Your task to perform on an android device: open app "Google Chat" Image 0: 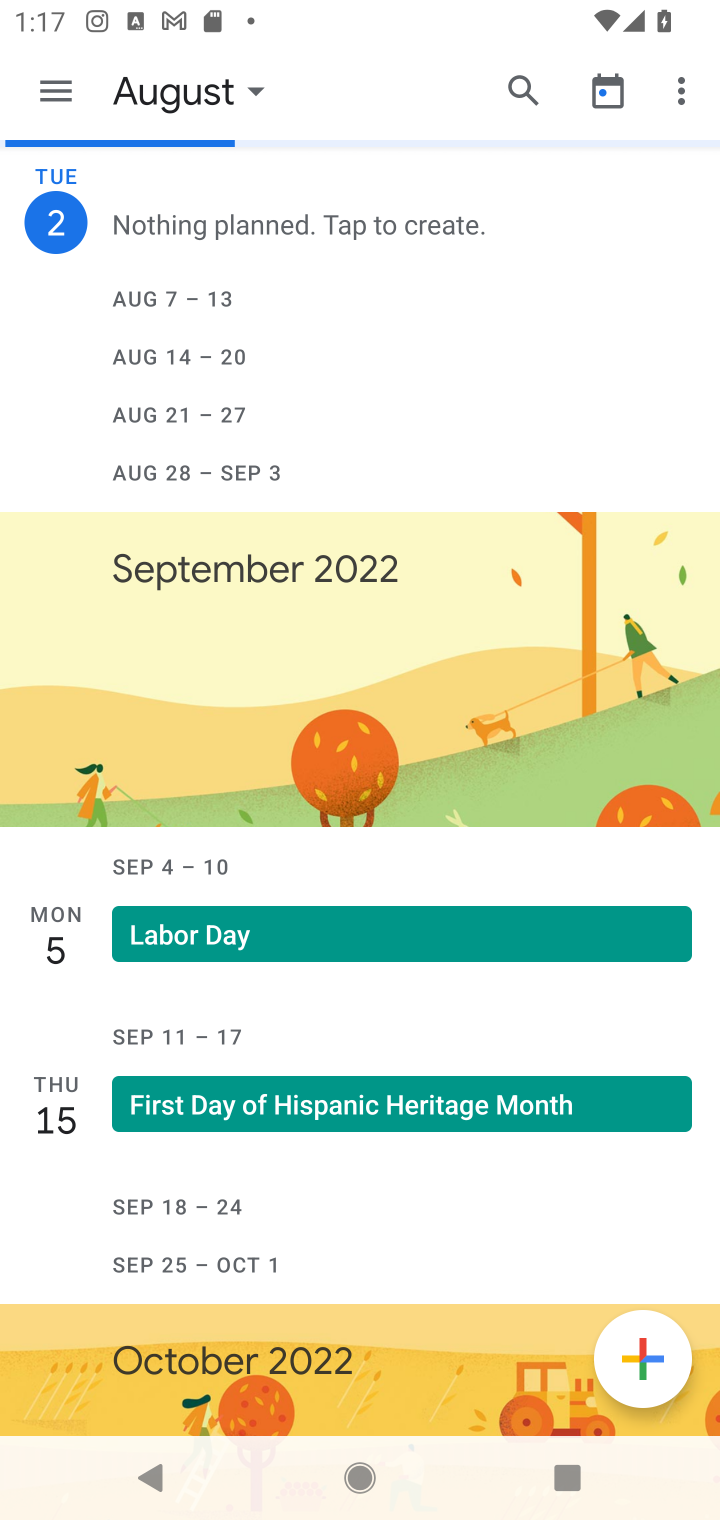
Step 0: press home button
Your task to perform on an android device: open app "Google Chat" Image 1: 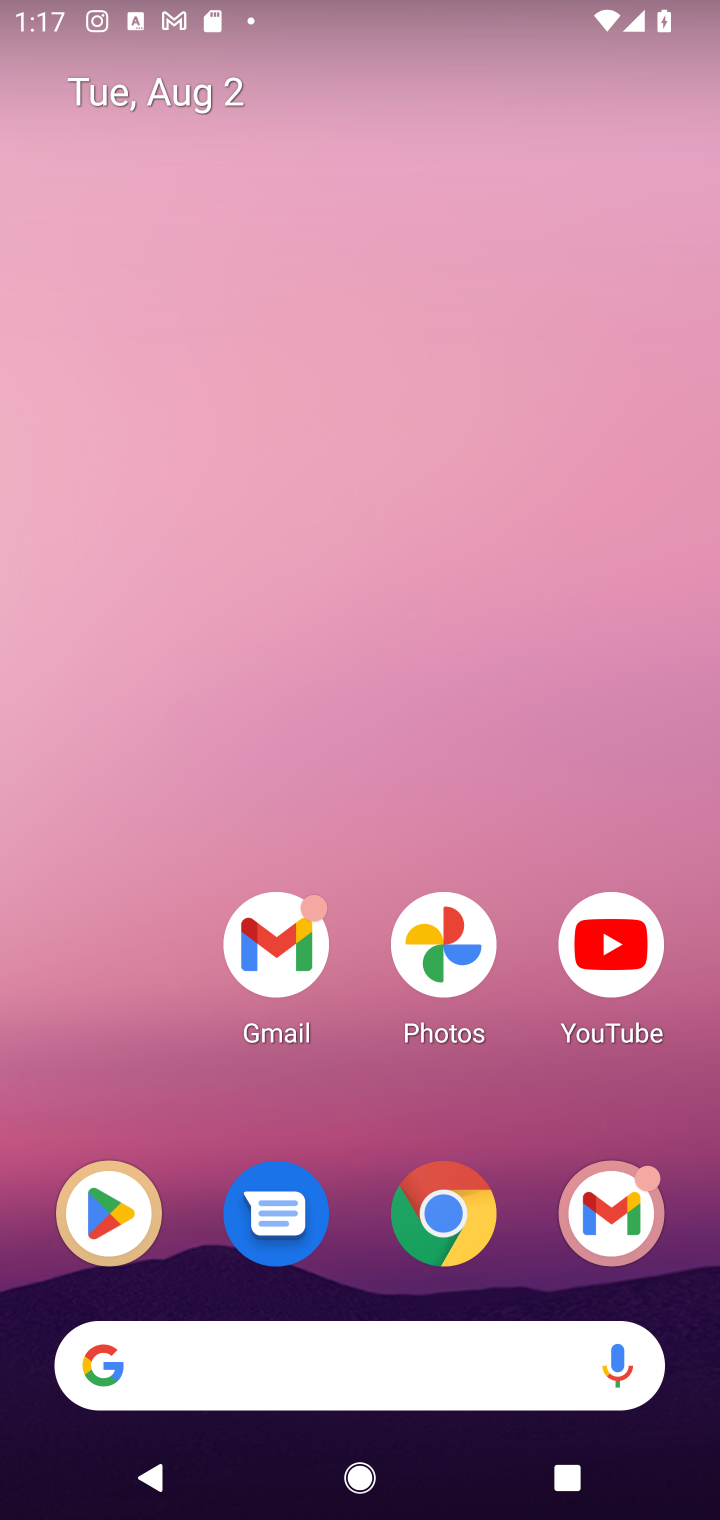
Step 1: click (121, 1234)
Your task to perform on an android device: open app "Google Chat" Image 2: 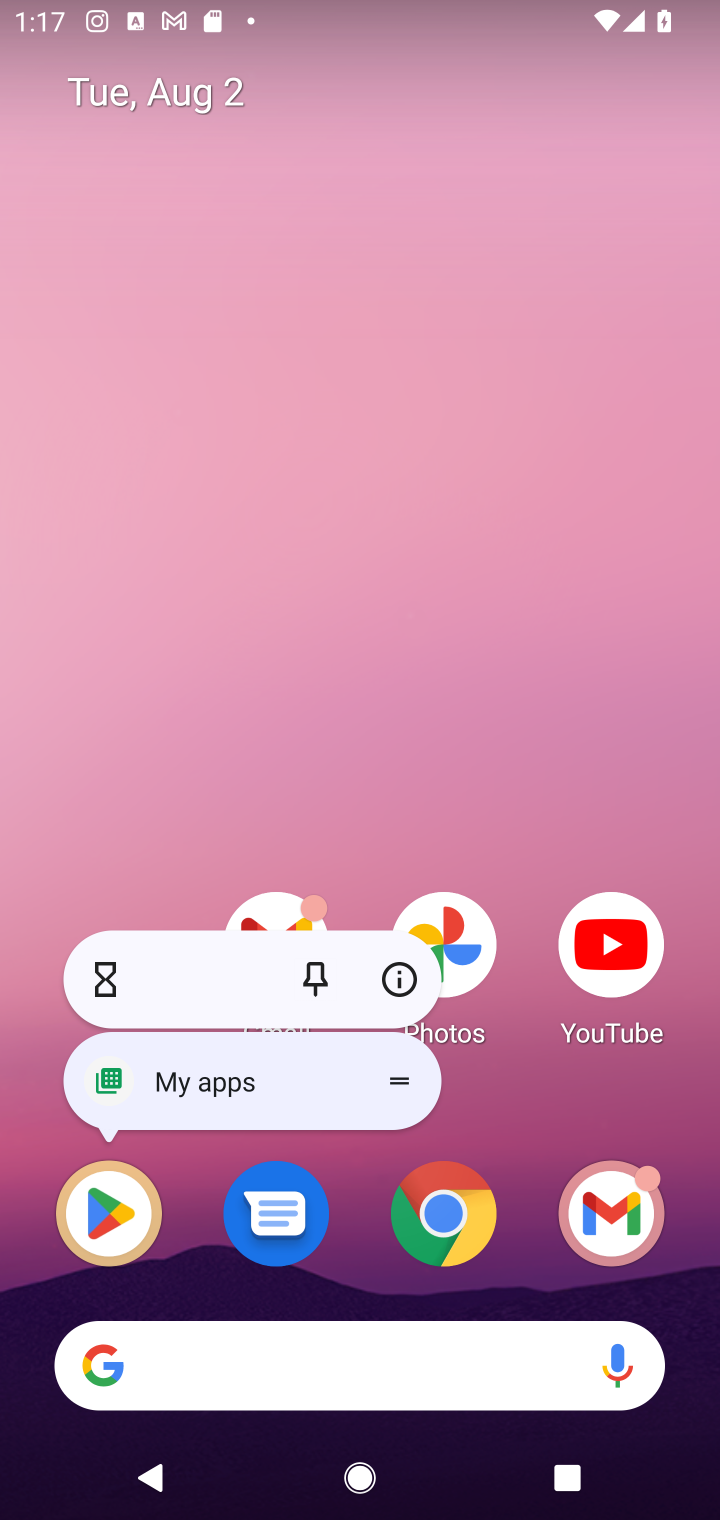
Step 2: click (107, 1245)
Your task to perform on an android device: open app "Google Chat" Image 3: 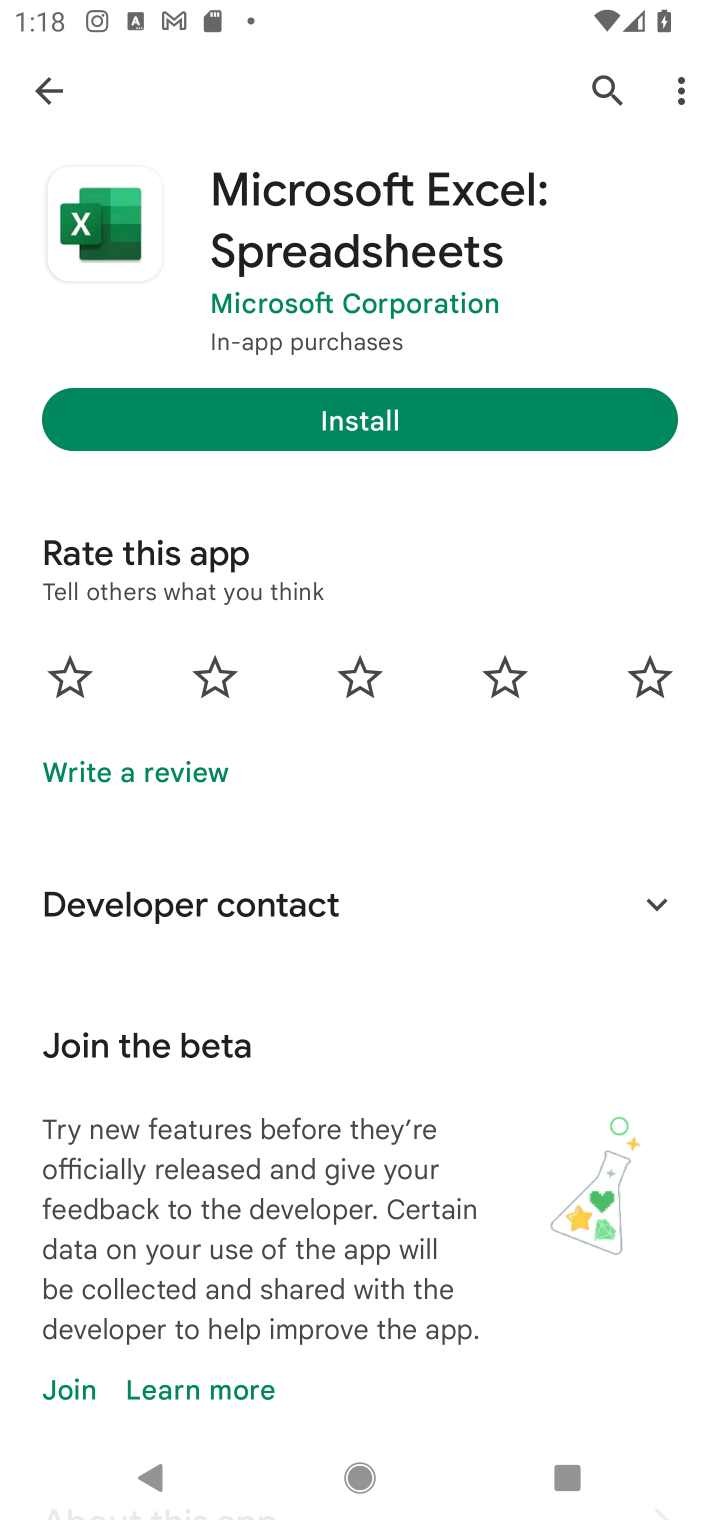
Step 3: click (53, 102)
Your task to perform on an android device: open app "Google Chat" Image 4: 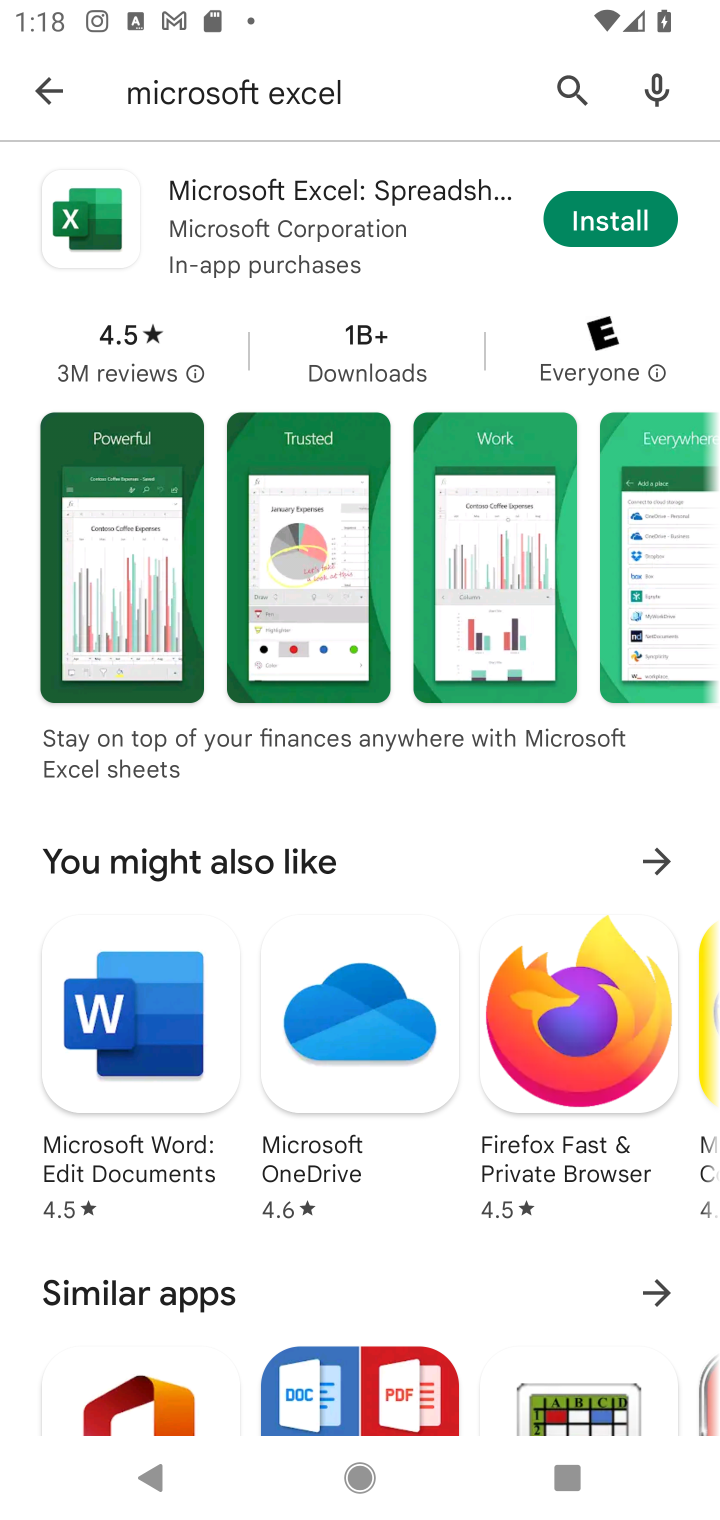
Step 4: click (53, 83)
Your task to perform on an android device: open app "Google Chat" Image 5: 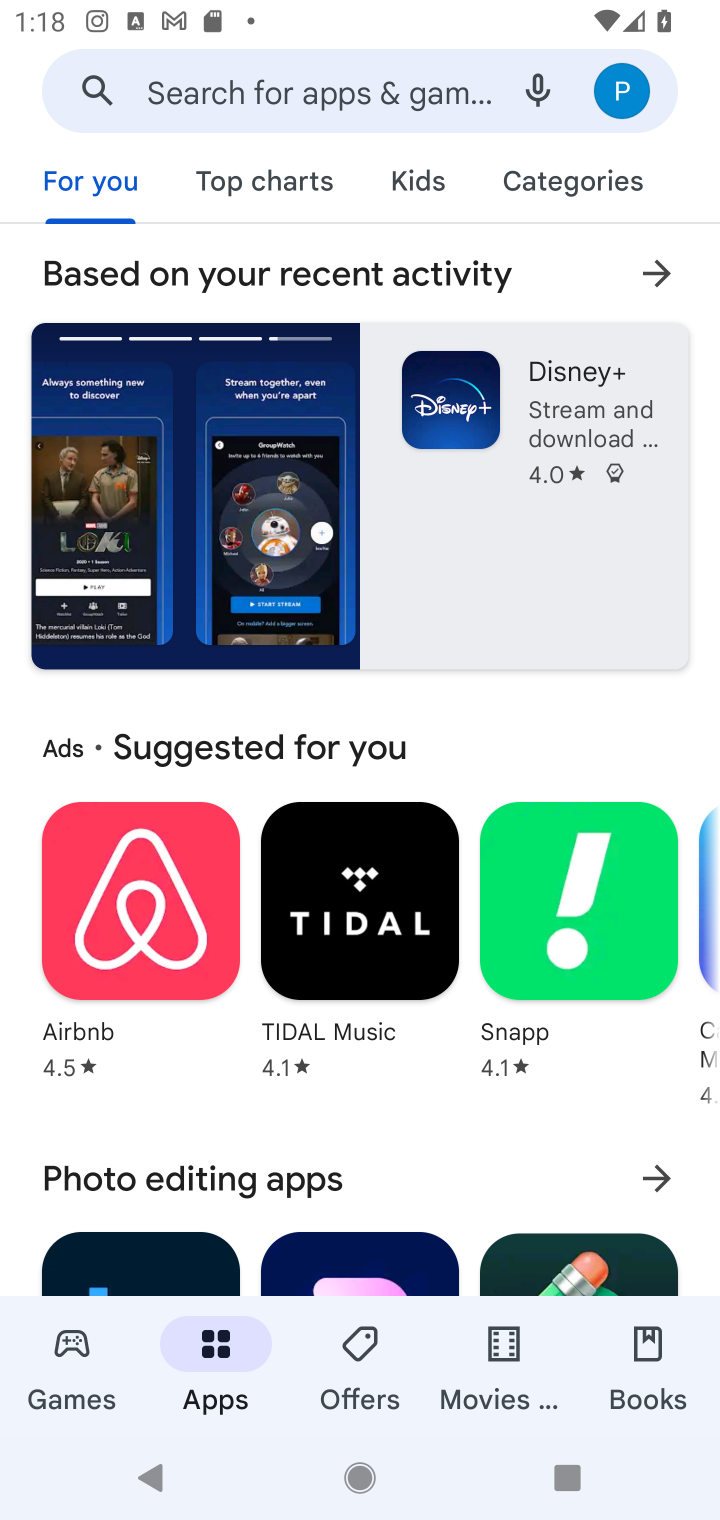
Step 5: click (53, 83)
Your task to perform on an android device: open app "Google Chat" Image 6: 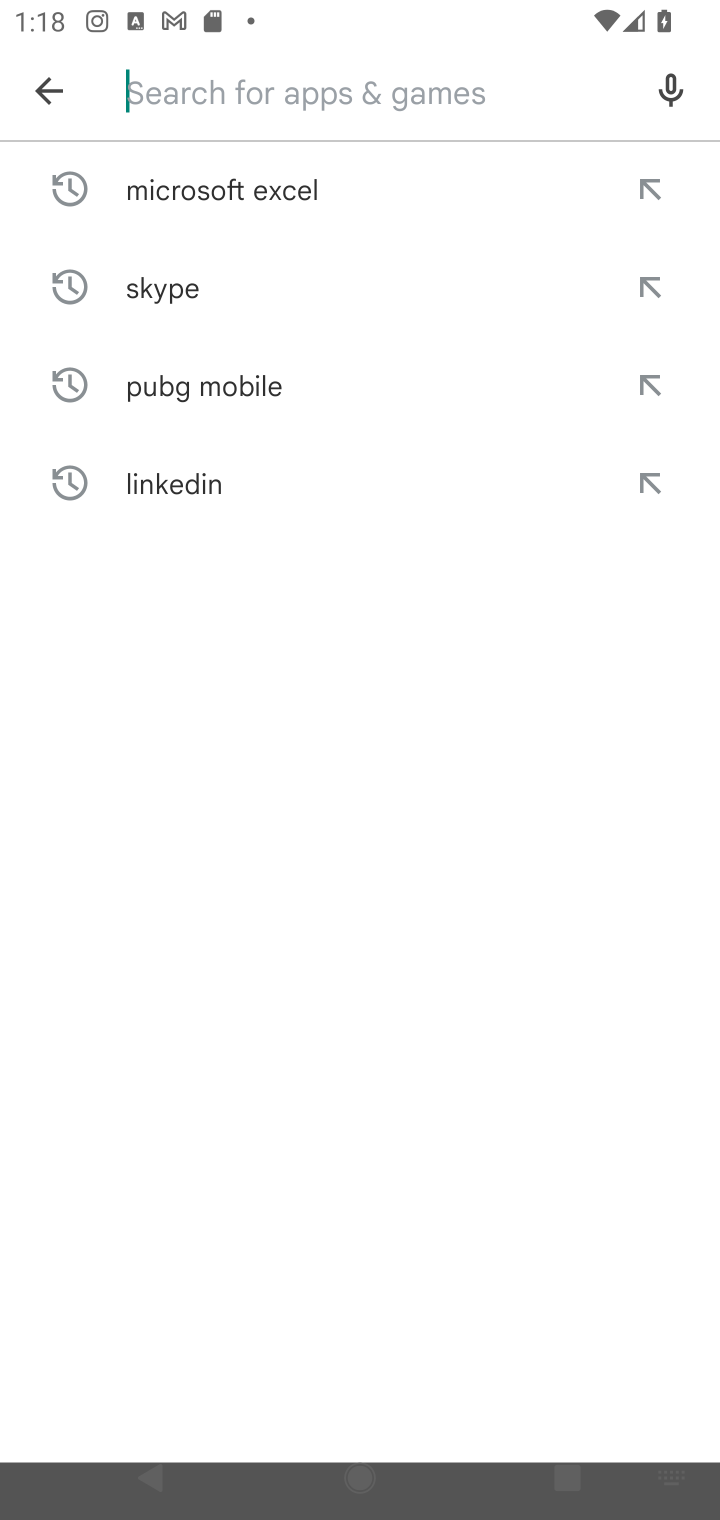
Step 6: click (191, 83)
Your task to perform on an android device: open app "Google Chat" Image 7: 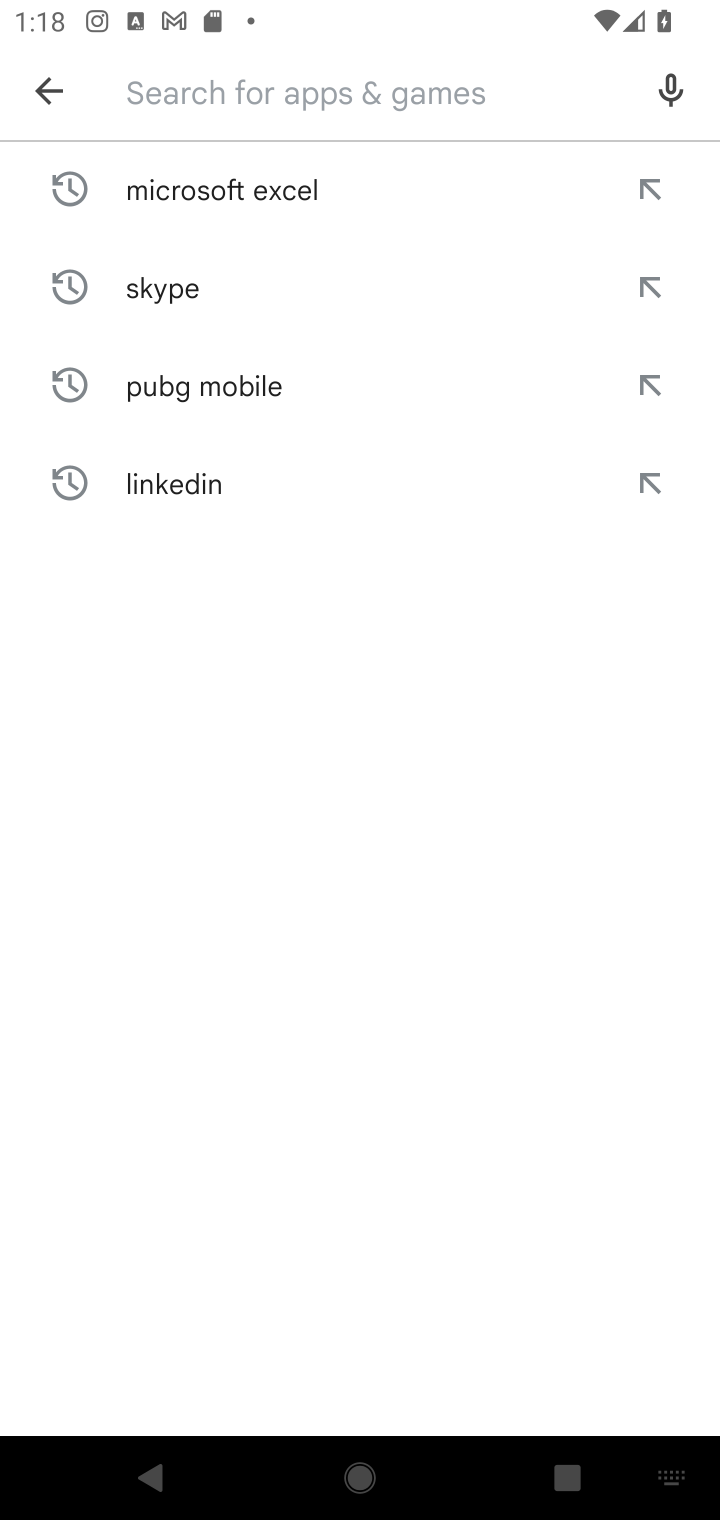
Step 7: type "Google Chat"
Your task to perform on an android device: open app "Google Chat" Image 8: 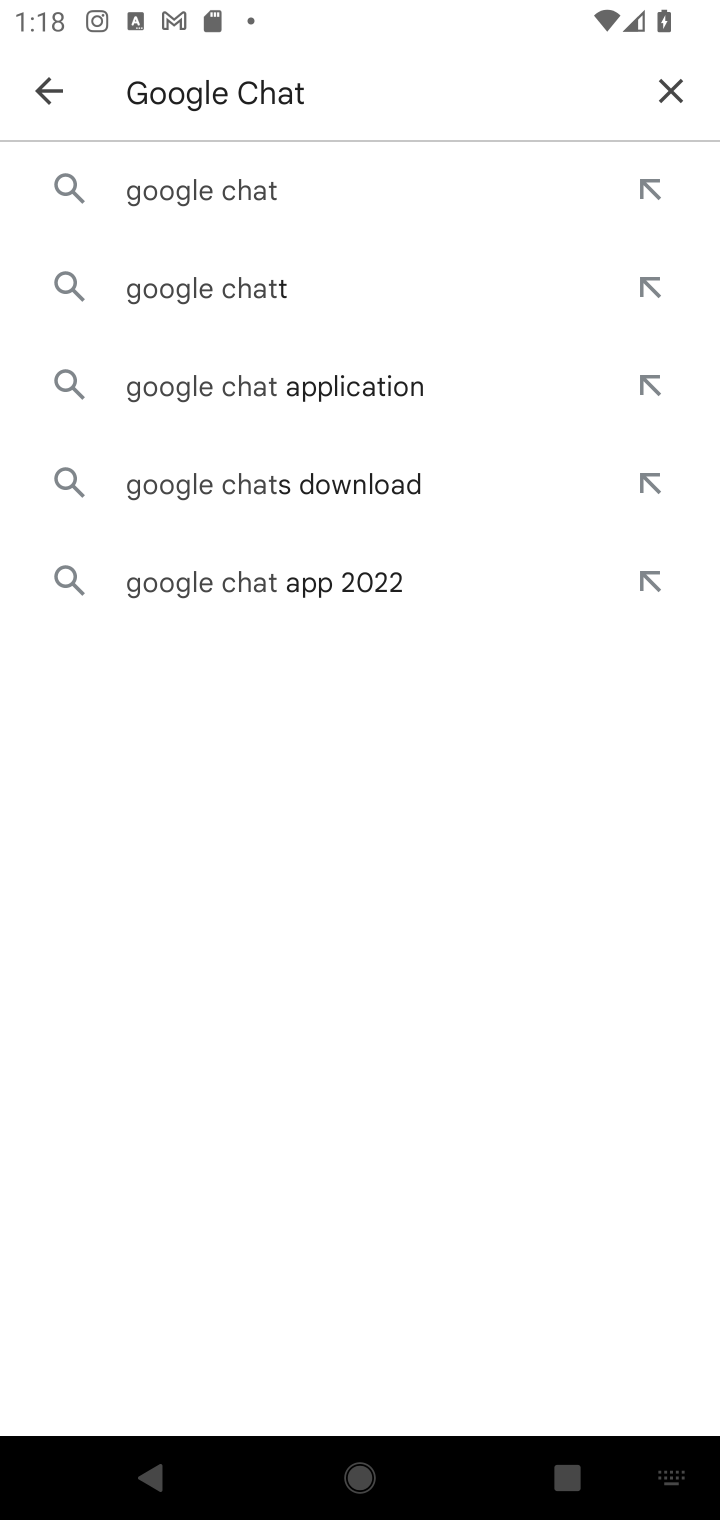
Step 8: click (232, 193)
Your task to perform on an android device: open app "Google Chat" Image 9: 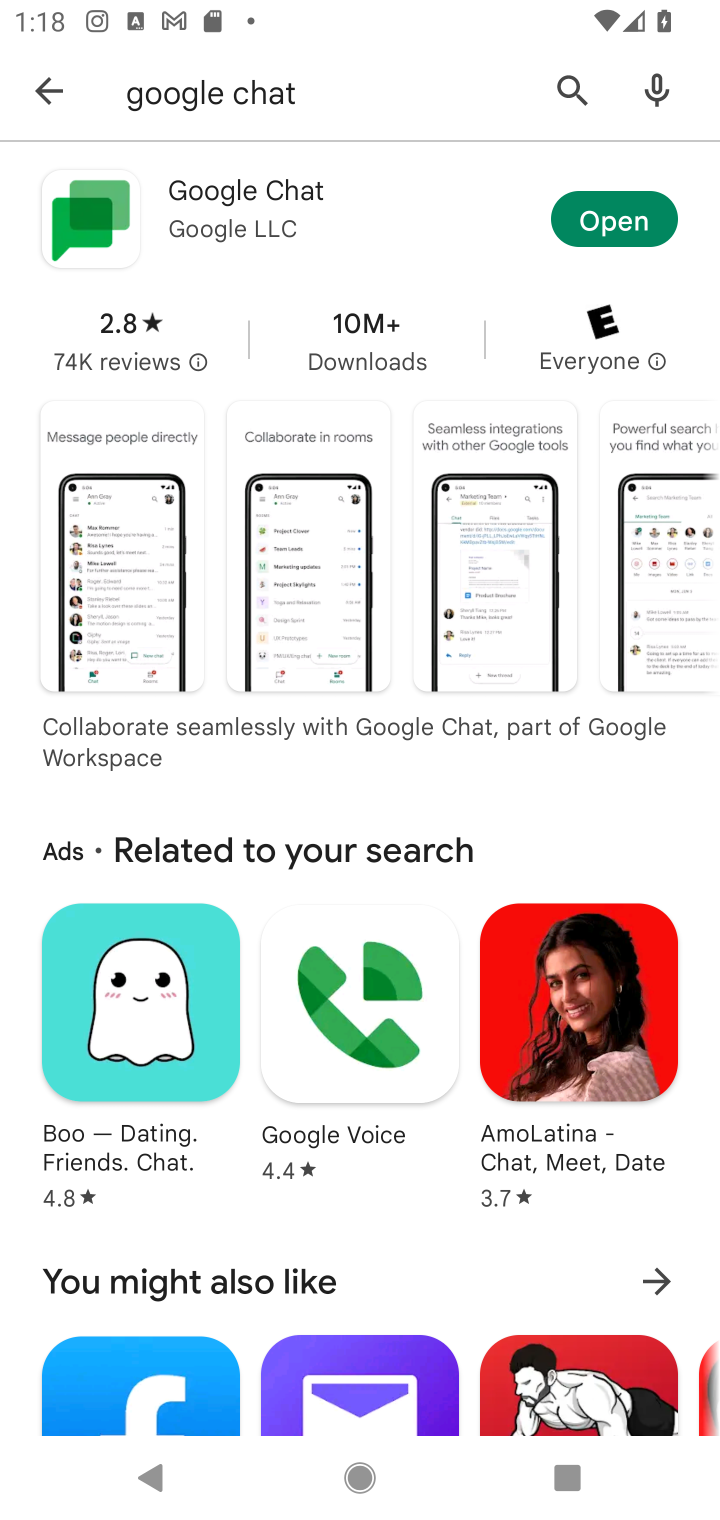
Step 9: click (592, 210)
Your task to perform on an android device: open app "Google Chat" Image 10: 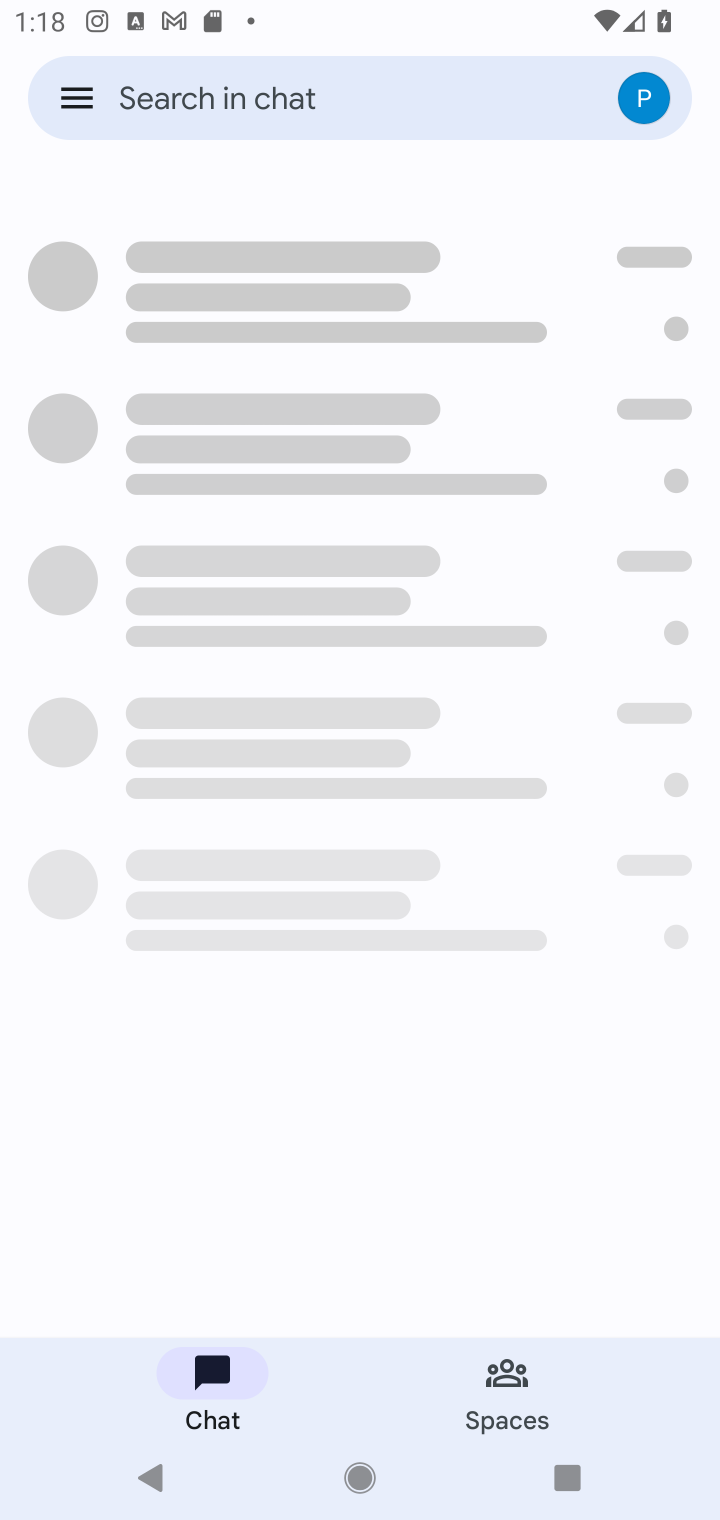
Step 10: task complete